Your task to perform on an android device: Show me popular videos on Youtube Image 0: 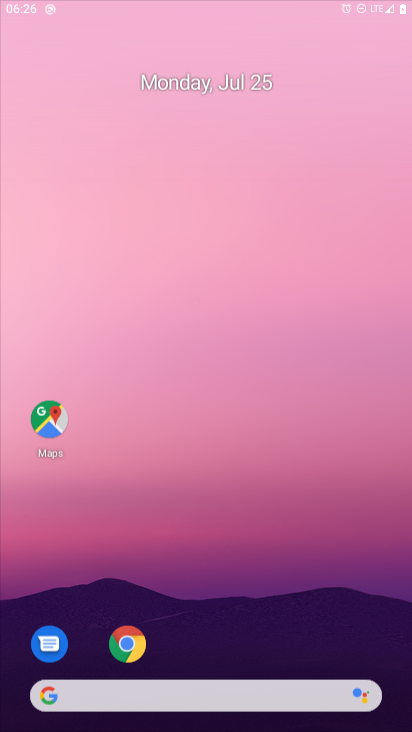
Step 0: press home button
Your task to perform on an android device: Show me popular videos on Youtube Image 1: 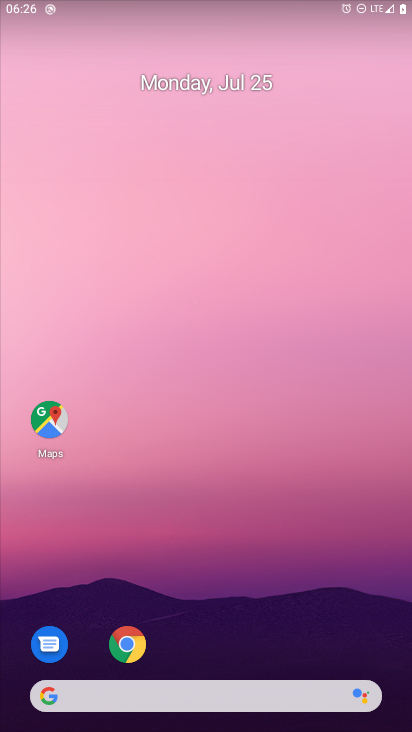
Step 1: drag from (196, 653) to (205, 238)
Your task to perform on an android device: Show me popular videos on Youtube Image 2: 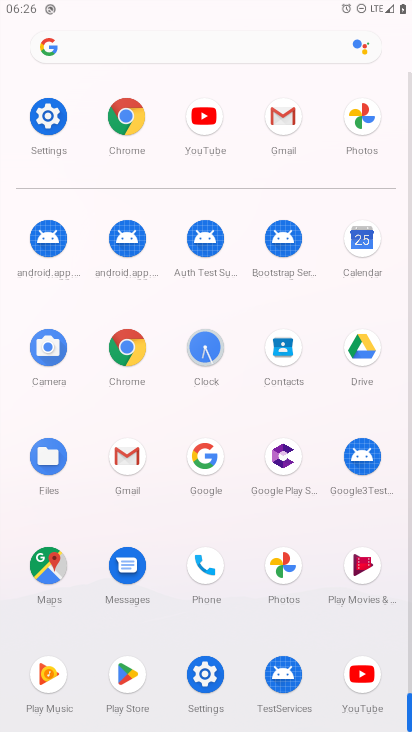
Step 2: click (357, 677)
Your task to perform on an android device: Show me popular videos on Youtube Image 3: 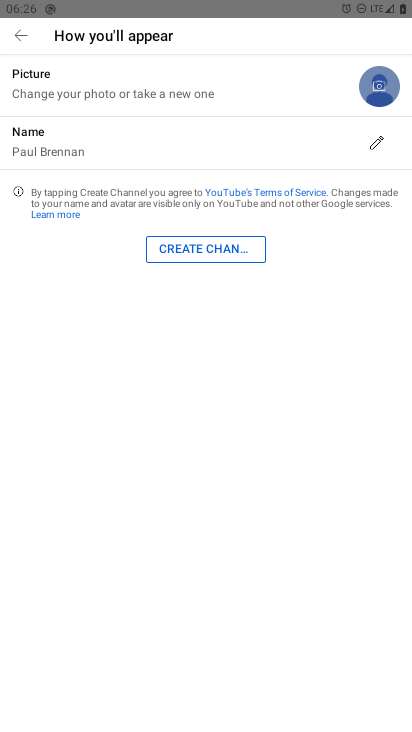
Step 3: click (21, 35)
Your task to perform on an android device: Show me popular videos on Youtube Image 4: 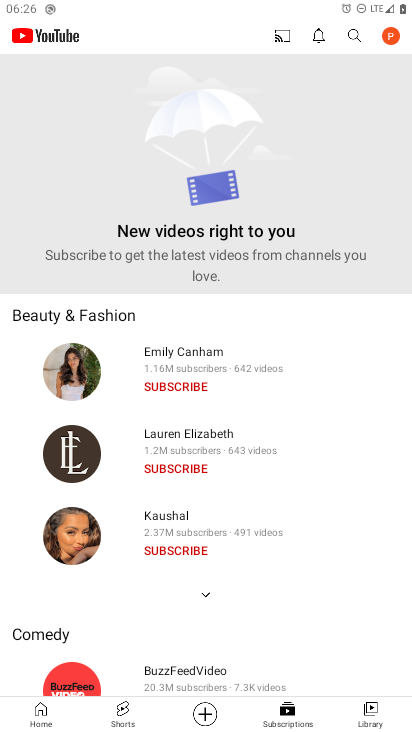
Step 4: press back button
Your task to perform on an android device: Show me popular videos on Youtube Image 5: 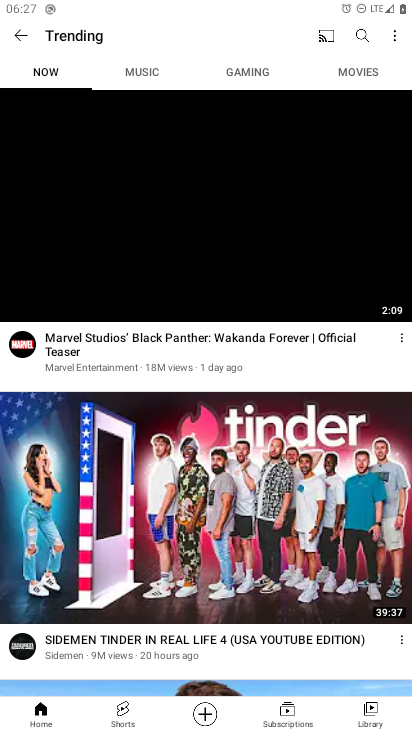
Step 5: click (34, 716)
Your task to perform on an android device: Show me popular videos on Youtube Image 6: 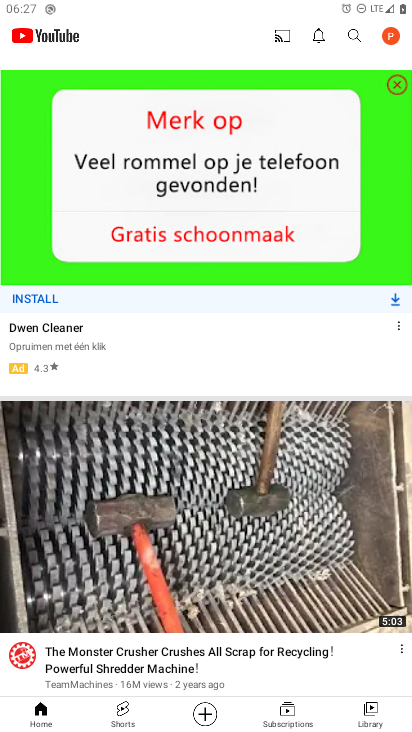
Step 6: click (53, 73)
Your task to perform on an android device: Show me popular videos on Youtube Image 7: 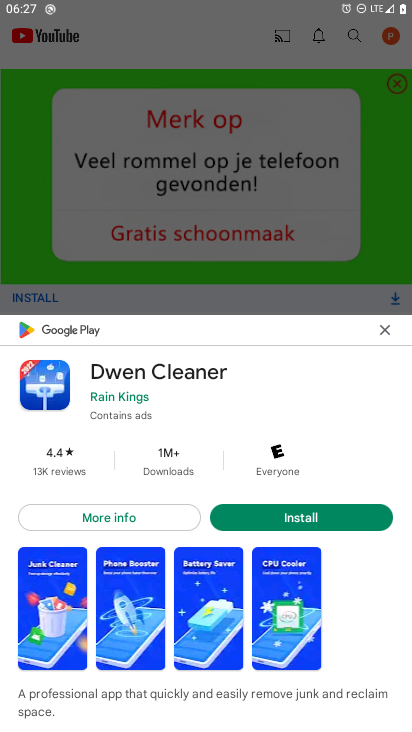
Step 7: click (392, 332)
Your task to perform on an android device: Show me popular videos on Youtube Image 8: 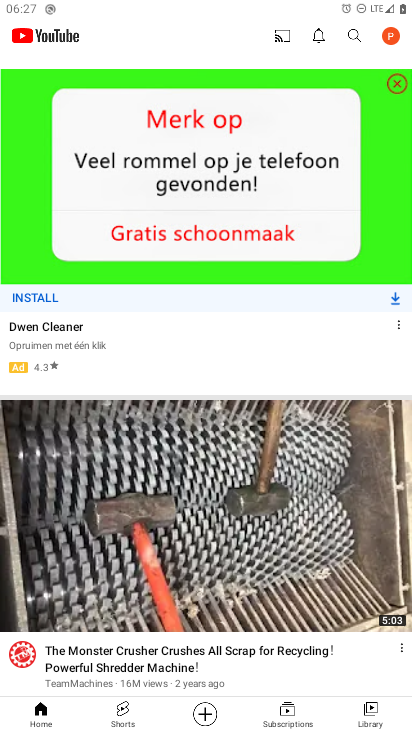
Step 8: drag from (23, 190) to (1, 645)
Your task to perform on an android device: Show me popular videos on Youtube Image 9: 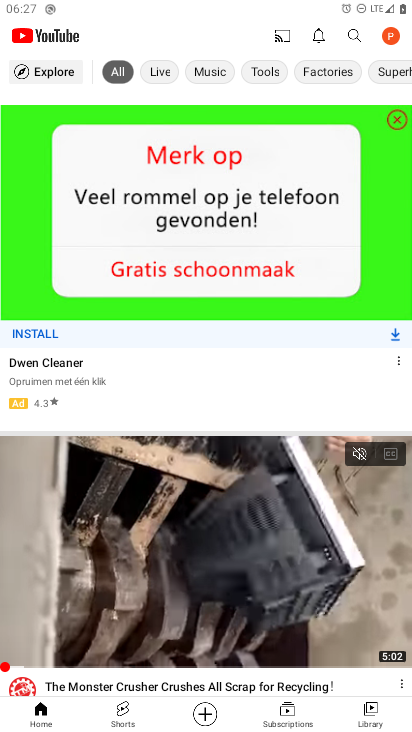
Step 9: click (60, 66)
Your task to perform on an android device: Show me popular videos on Youtube Image 10: 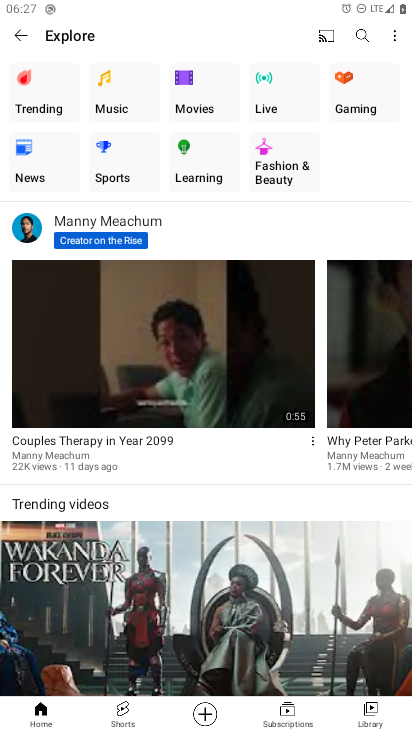
Step 10: click (29, 105)
Your task to perform on an android device: Show me popular videos on Youtube Image 11: 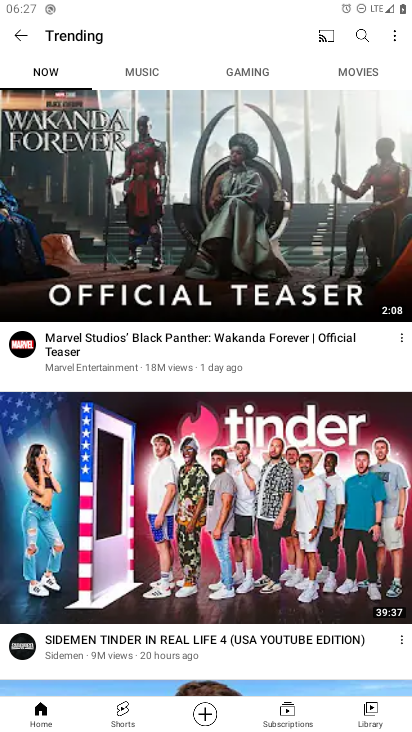
Step 11: task complete